Your task to perform on an android device: Open ESPN.com Image 0: 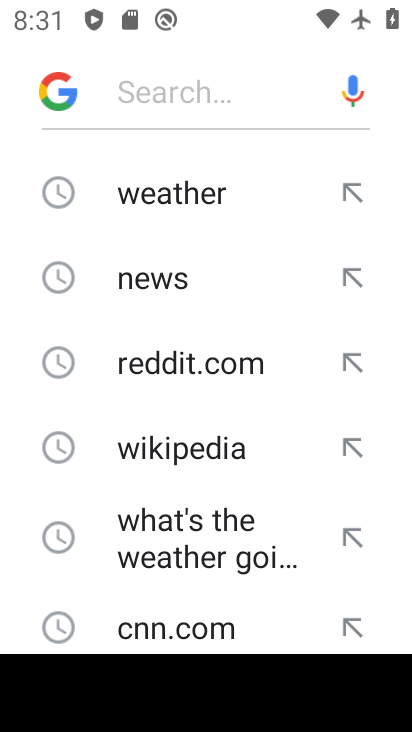
Step 0: press home button
Your task to perform on an android device: Open ESPN.com Image 1: 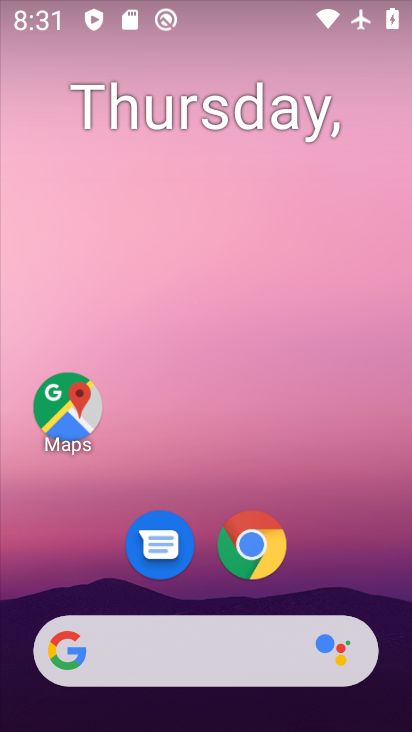
Step 1: drag from (268, 557) to (268, 129)
Your task to perform on an android device: Open ESPN.com Image 2: 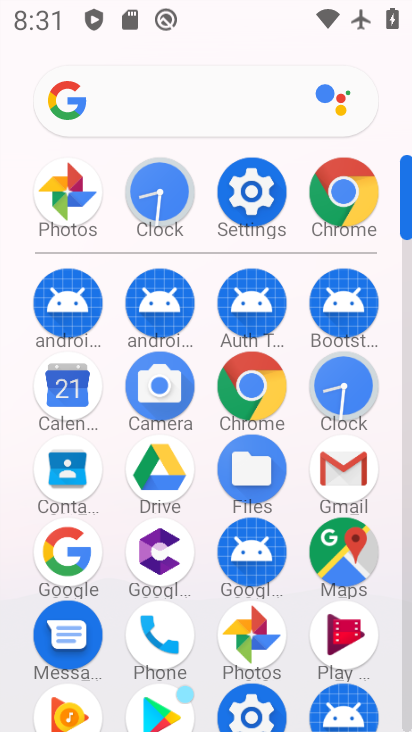
Step 2: click (251, 389)
Your task to perform on an android device: Open ESPN.com Image 3: 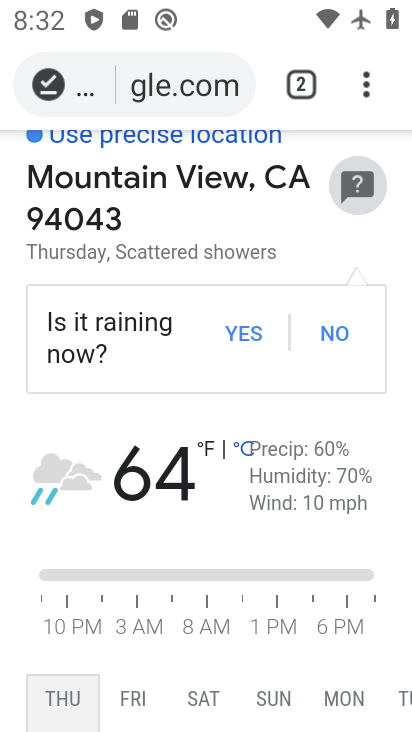
Step 3: click (362, 85)
Your task to perform on an android device: Open ESPN.com Image 4: 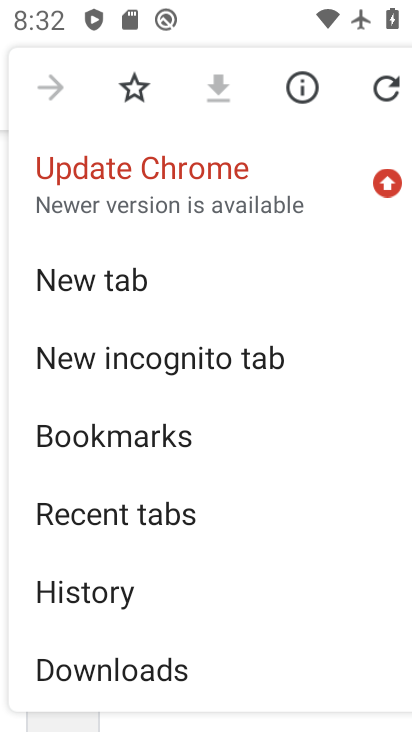
Step 4: click (129, 259)
Your task to perform on an android device: Open ESPN.com Image 5: 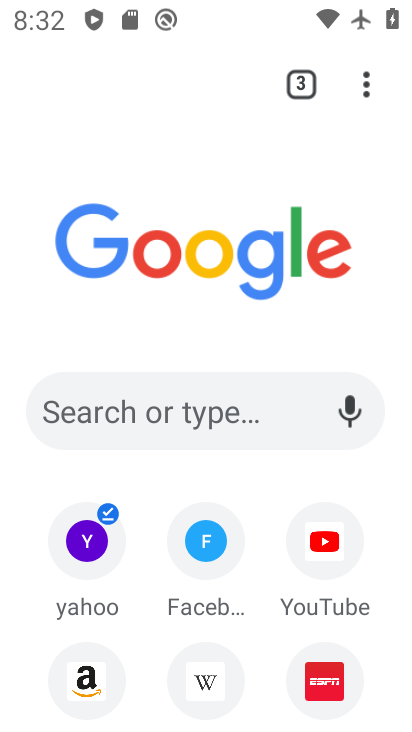
Step 5: click (319, 682)
Your task to perform on an android device: Open ESPN.com Image 6: 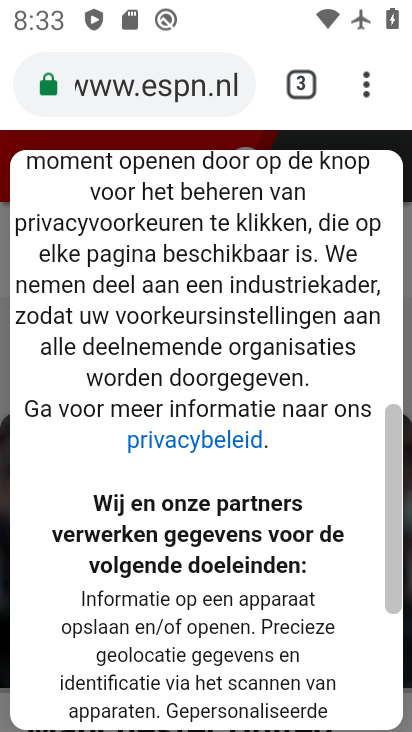
Step 6: task complete